Your task to perform on an android device: Go to battery settings Image 0: 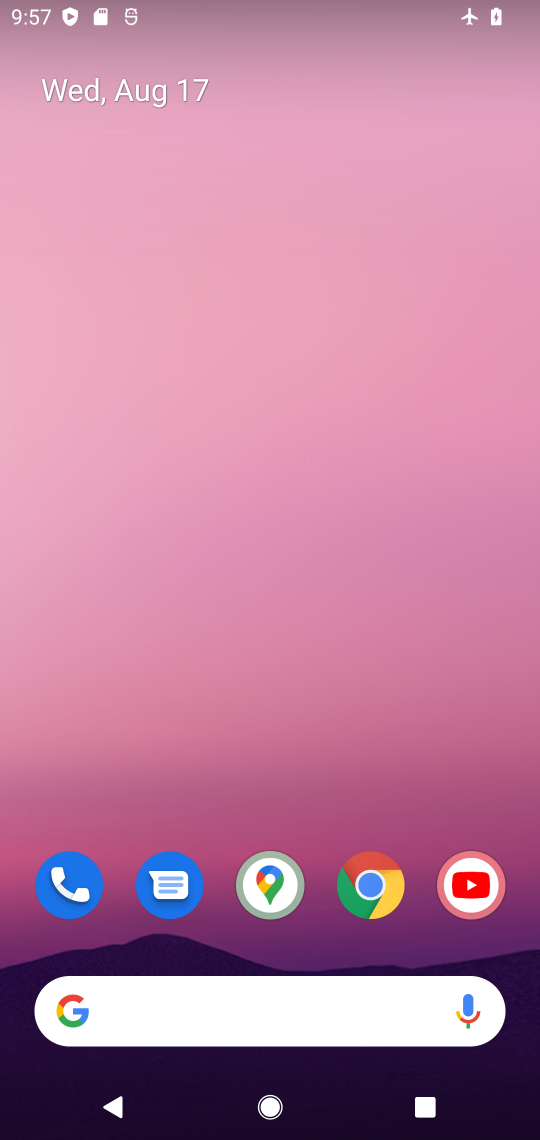
Step 0: drag from (433, 953) to (362, 126)
Your task to perform on an android device: Go to battery settings Image 1: 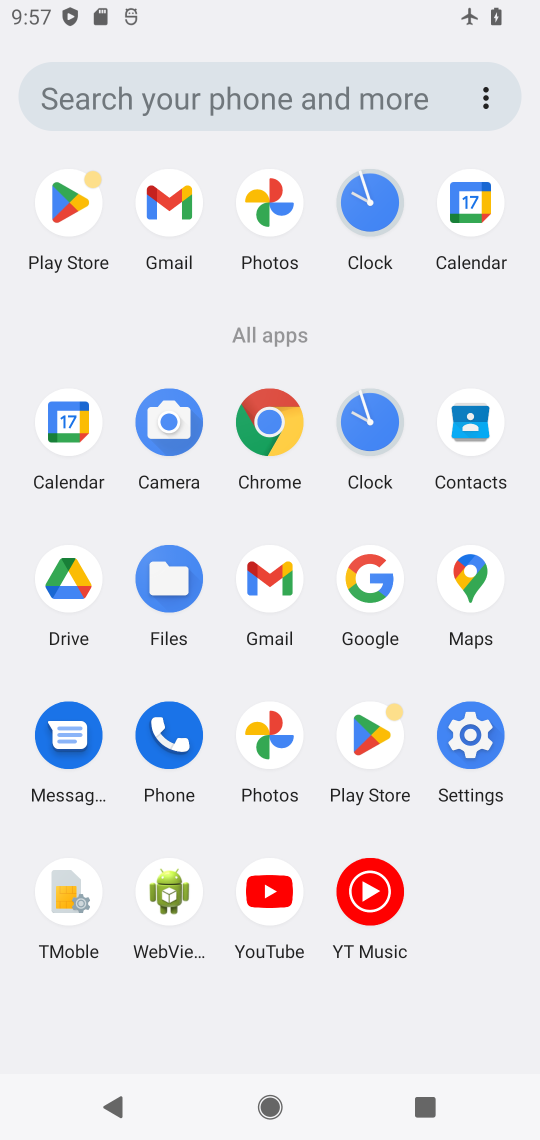
Step 1: click (470, 734)
Your task to perform on an android device: Go to battery settings Image 2: 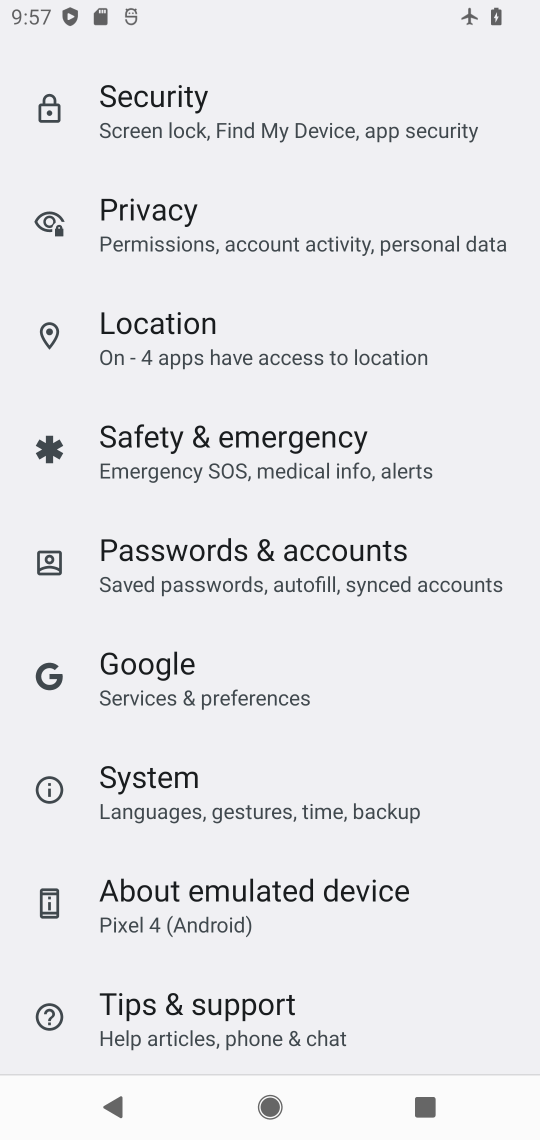
Step 2: drag from (428, 298) to (400, 813)
Your task to perform on an android device: Go to battery settings Image 3: 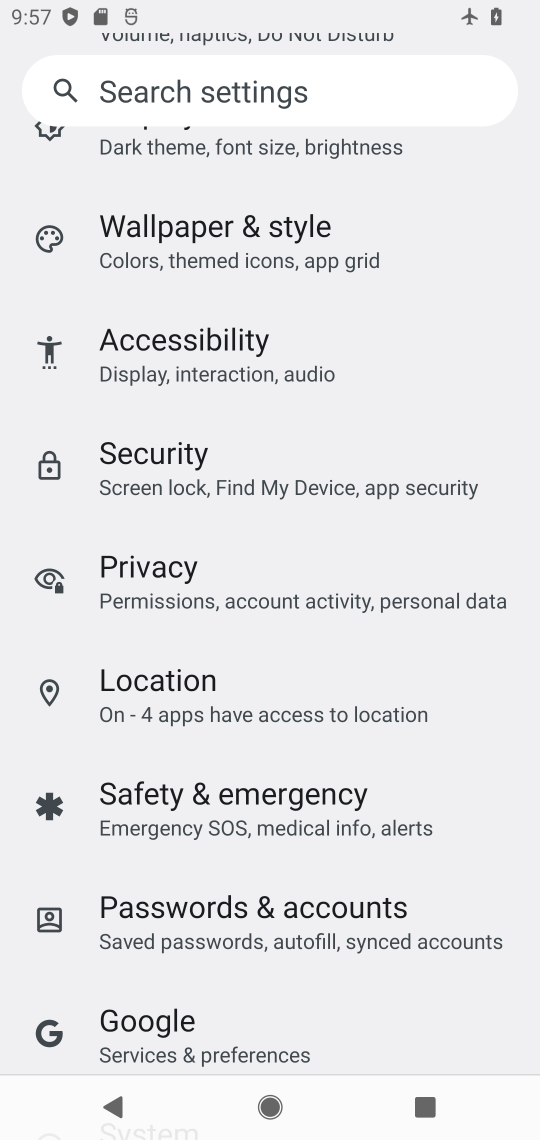
Step 3: drag from (444, 231) to (447, 900)
Your task to perform on an android device: Go to battery settings Image 4: 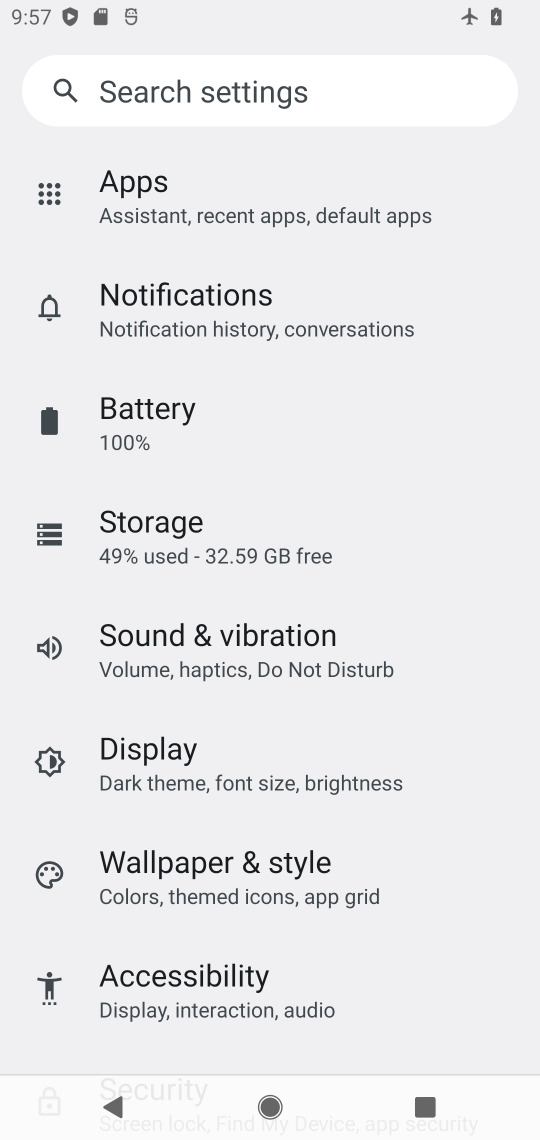
Step 4: click (123, 400)
Your task to perform on an android device: Go to battery settings Image 5: 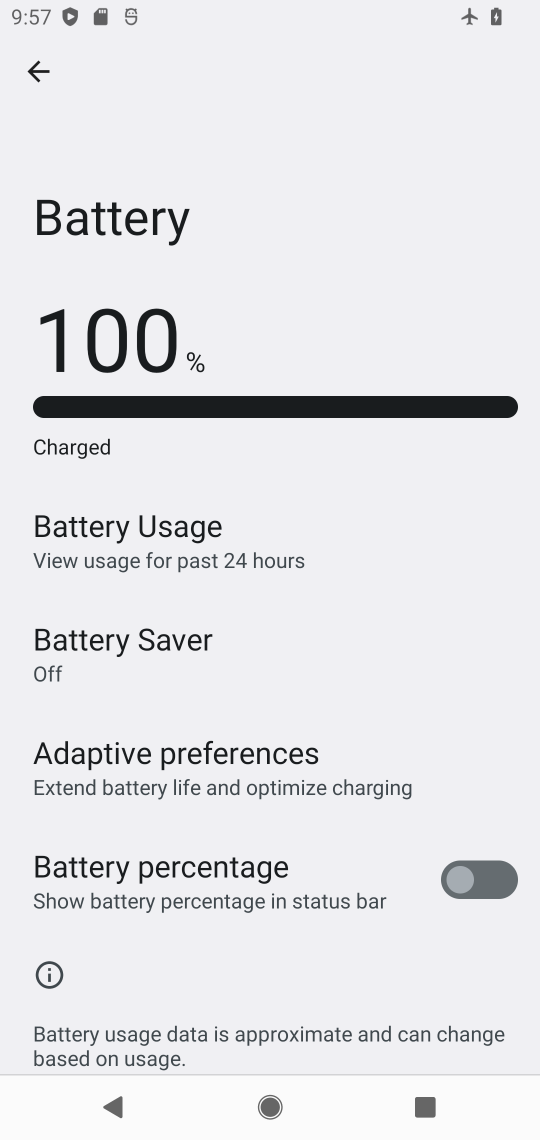
Step 5: task complete